Your task to perform on an android device: Search for Mexican restaurants on Maps Image 0: 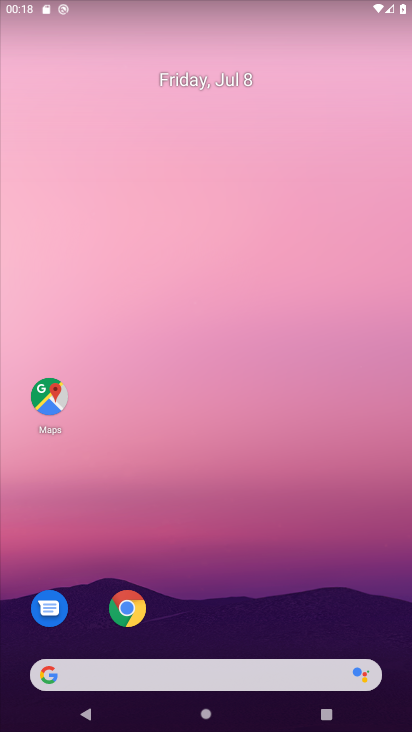
Step 0: drag from (246, 635) to (77, 213)
Your task to perform on an android device: Search for Mexican restaurants on Maps Image 1: 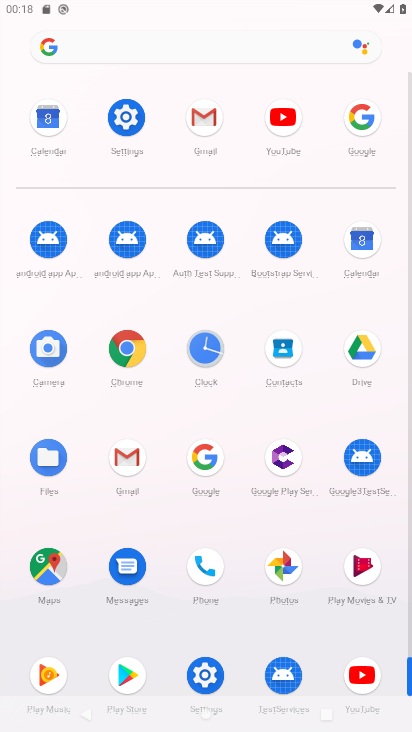
Step 1: click (48, 559)
Your task to perform on an android device: Search for Mexican restaurants on Maps Image 2: 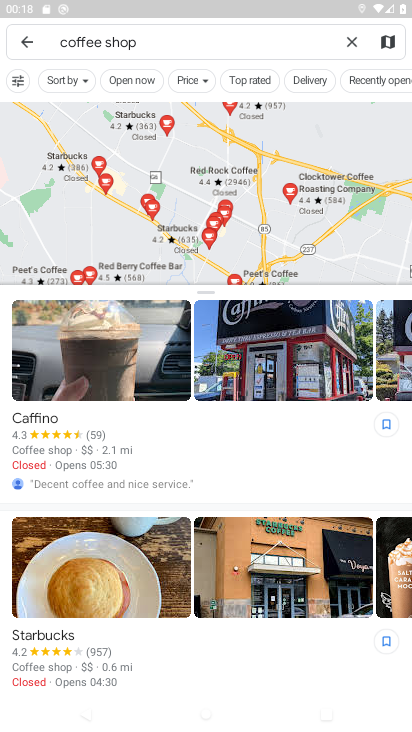
Step 2: click (360, 40)
Your task to perform on an android device: Search for Mexican restaurants on Maps Image 3: 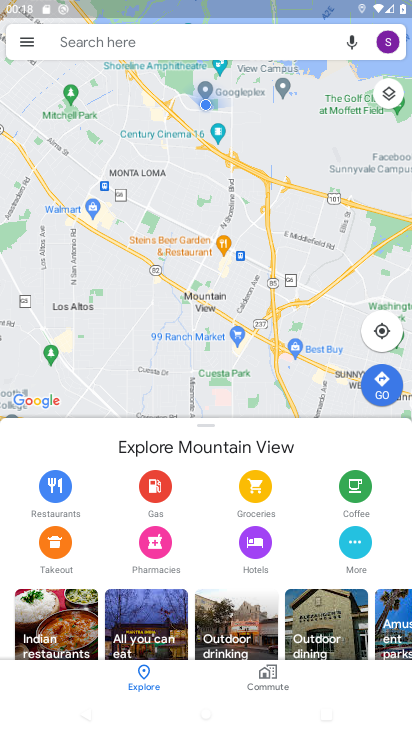
Step 3: click (128, 27)
Your task to perform on an android device: Search for Mexican restaurants on Maps Image 4: 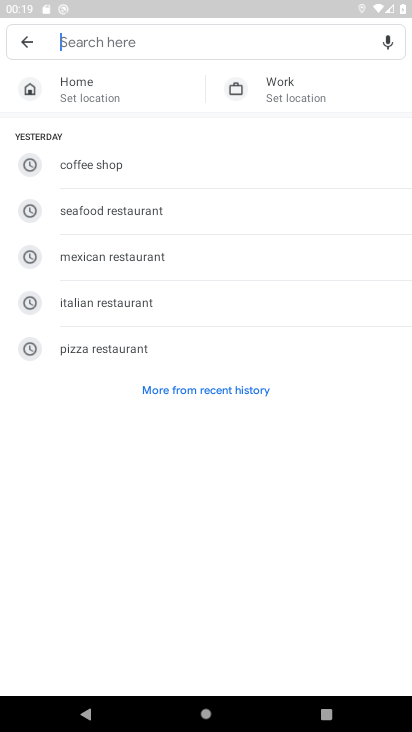
Step 4: type " Mexican restaurants "
Your task to perform on an android device: Search for Mexican restaurants on Maps Image 5: 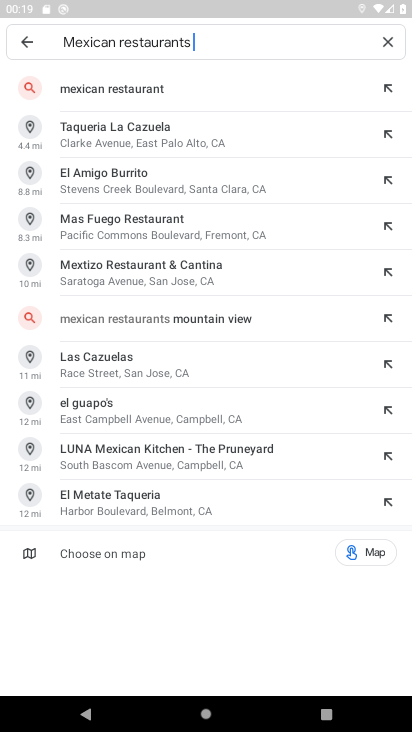
Step 5: click (218, 68)
Your task to perform on an android device: Search for Mexican restaurants on Maps Image 6: 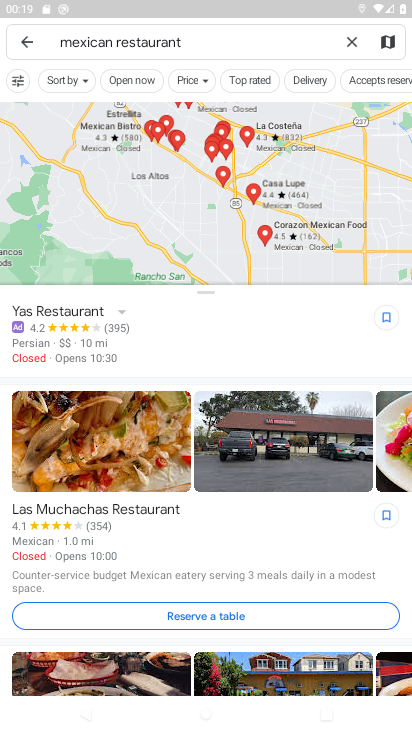
Step 6: task complete